Your task to perform on an android device: Search for sushi restaurants on Maps Image 0: 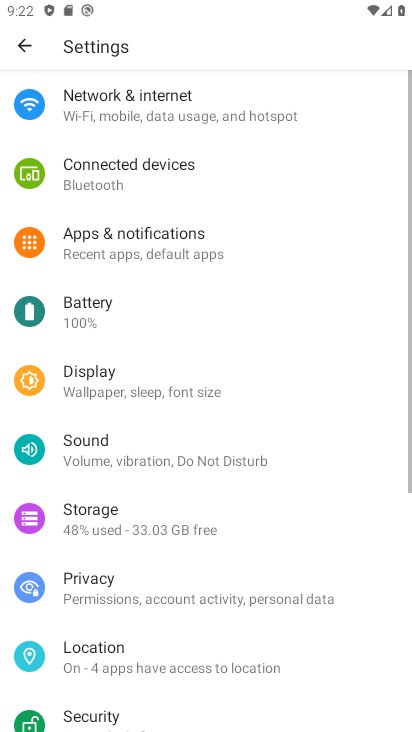
Step 0: press home button
Your task to perform on an android device: Search for sushi restaurants on Maps Image 1: 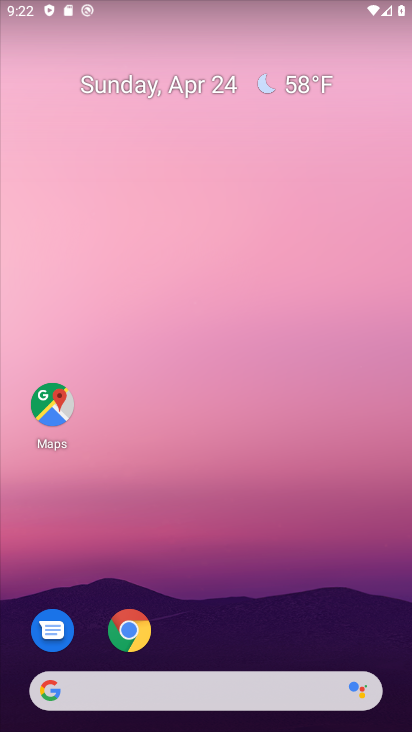
Step 1: drag from (226, 611) to (304, 199)
Your task to perform on an android device: Search for sushi restaurants on Maps Image 2: 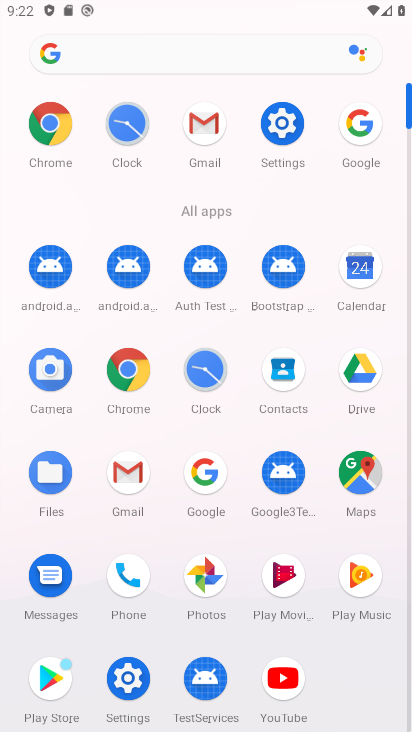
Step 2: click (365, 486)
Your task to perform on an android device: Search for sushi restaurants on Maps Image 3: 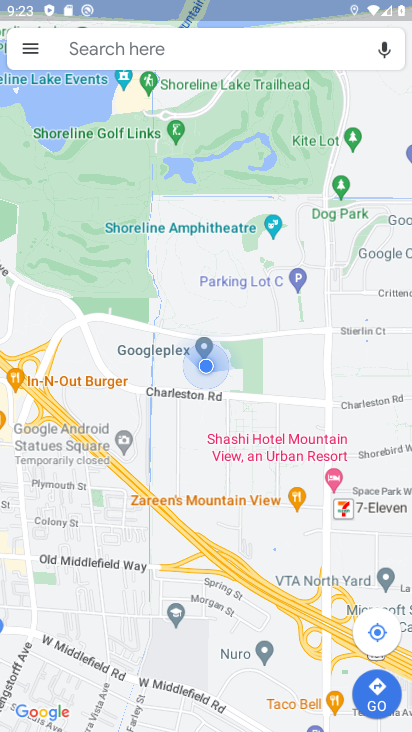
Step 3: click (170, 65)
Your task to perform on an android device: Search for sushi restaurants on Maps Image 4: 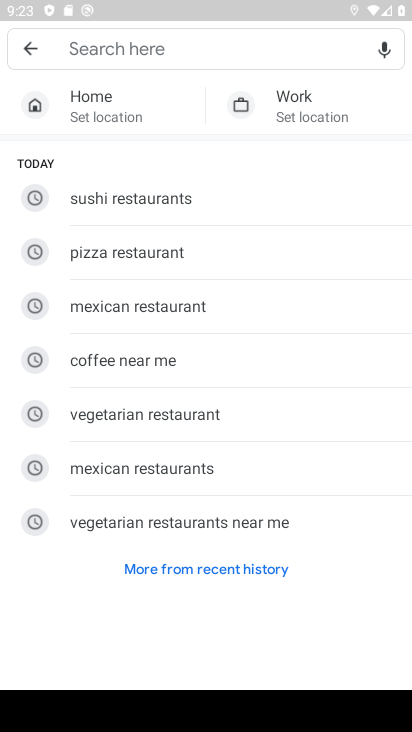
Step 4: click (186, 211)
Your task to perform on an android device: Search for sushi restaurants on Maps Image 5: 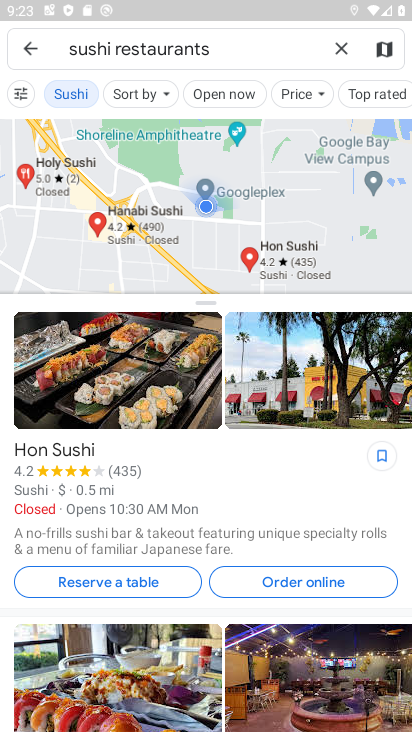
Step 5: task complete